Your task to perform on an android device: turn off wifi Image 0: 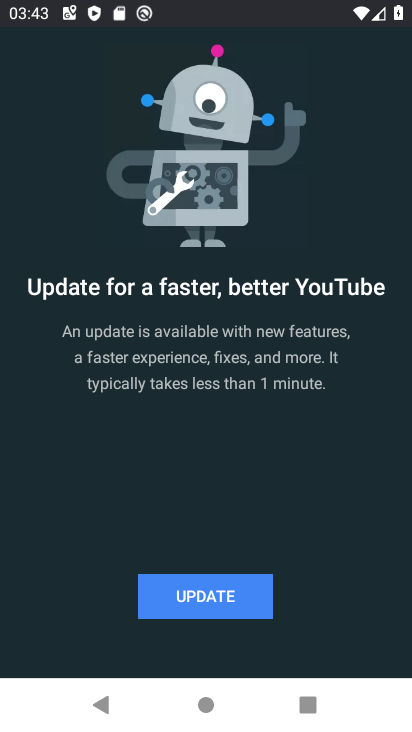
Step 0: press back button
Your task to perform on an android device: turn off wifi Image 1: 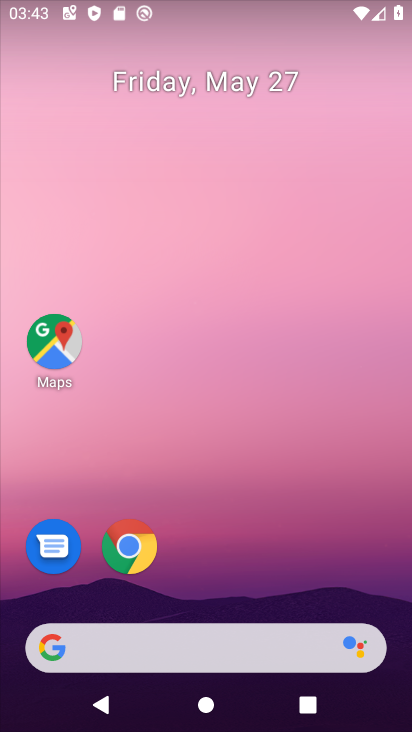
Step 1: drag from (391, 695) to (353, 222)
Your task to perform on an android device: turn off wifi Image 2: 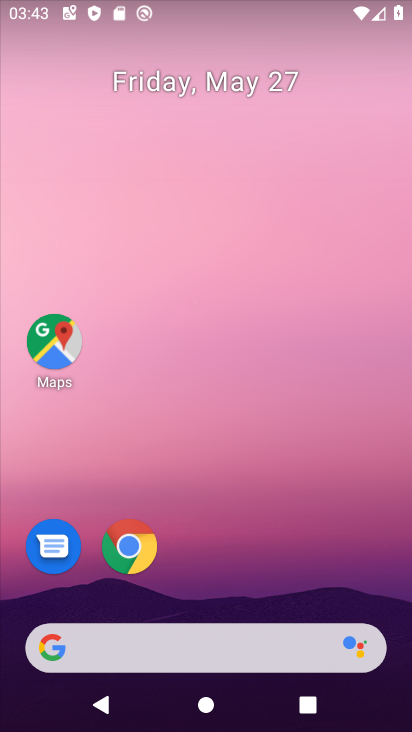
Step 2: drag from (382, 605) to (330, 129)
Your task to perform on an android device: turn off wifi Image 3: 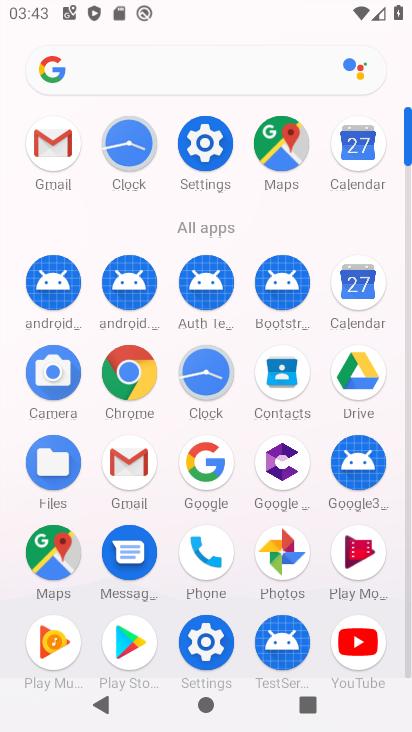
Step 3: click (189, 145)
Your task to perform on an android device: turn off wifi Image 4: 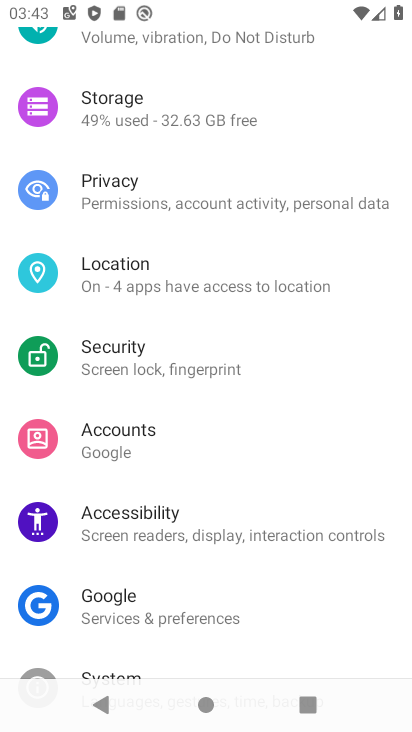
Step 4: drag from (318, 58) to (341, 515)
Your task to perform on an android device: turn off wifi Image 5: 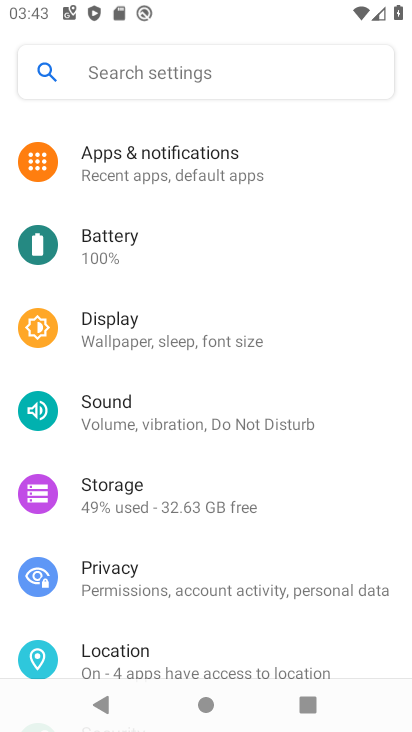
Step 5: drag from (330, 131) to (354, 539)
Your task to perform on an android device: turn off wifi Image 6: 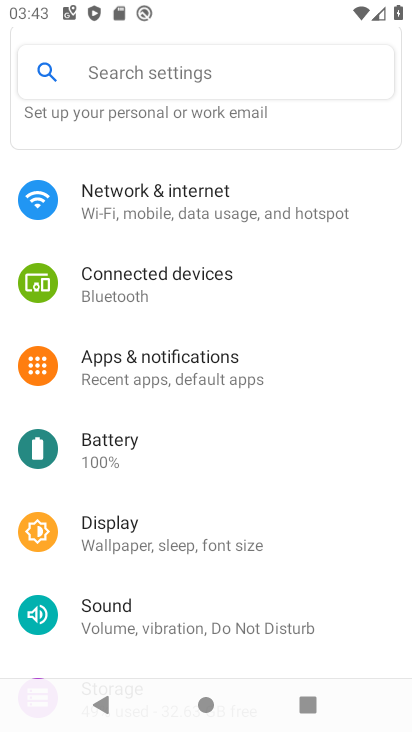
Step 6: click (145, 197)
Your task to perform on an android device: turn off wifi Image 7: 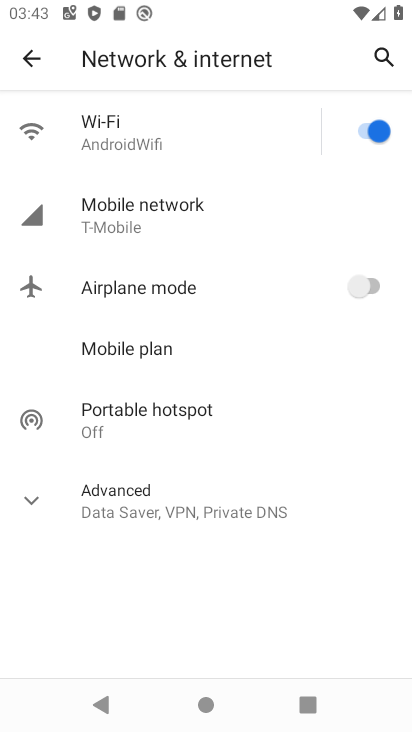
Step 7: click (362, 130)
Your task to perform on an android device: turn off wifi Image 8: 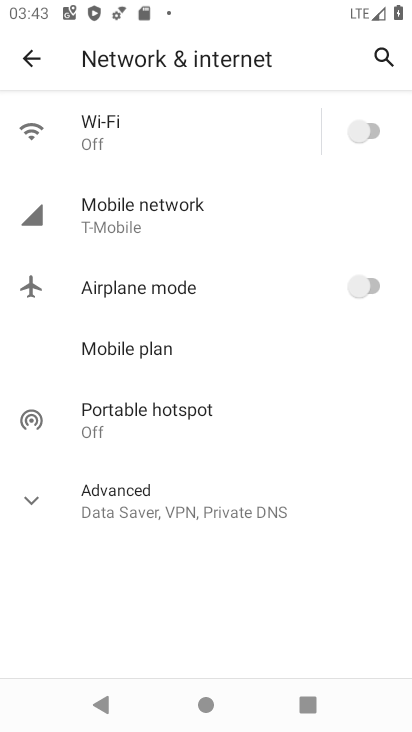
Step 8: task complete